Your task to perform on an android device: Show the shopping cart on walmart.com. Add alienware area 51 to the cart on walmart.com, then select checkout. Image 0: 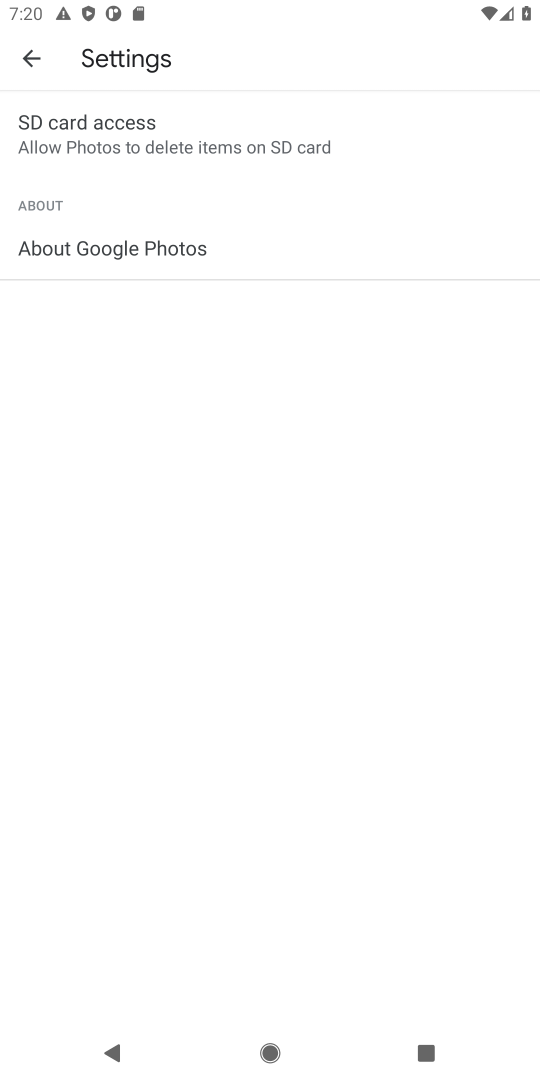
Step 0: press home button
Your task to perform on an android device: Show the shopping cart on walmart.com. Add alienware area 51 to the cart on walmart.com, then select checkout. Image 1: 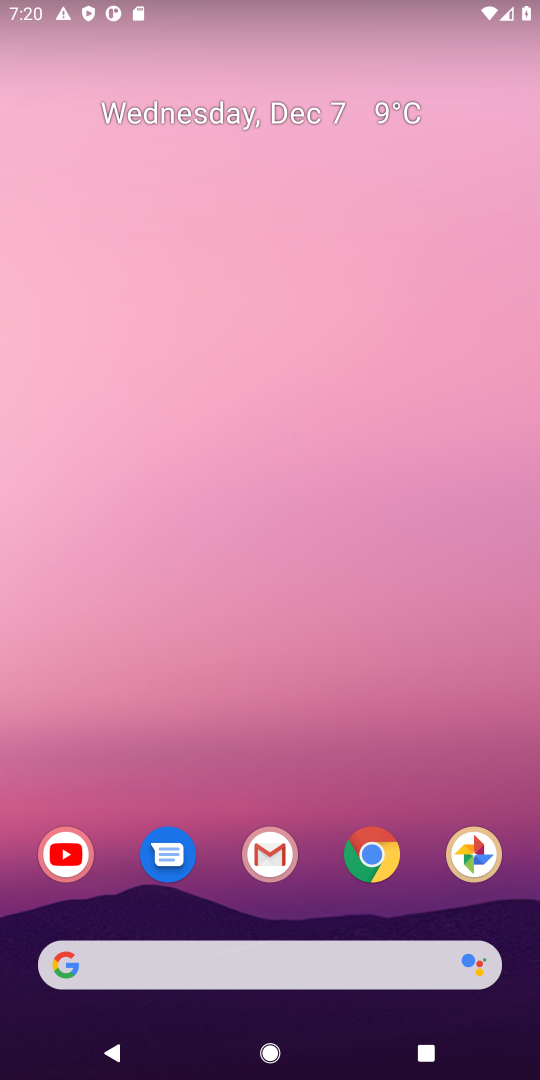
Step 1: click (312, 964)
Your task to perform on an android device: Show the shopping cart on walmart.com. Add alienware area 51 to the cart on walmart.com, then select checkout. Image 2: 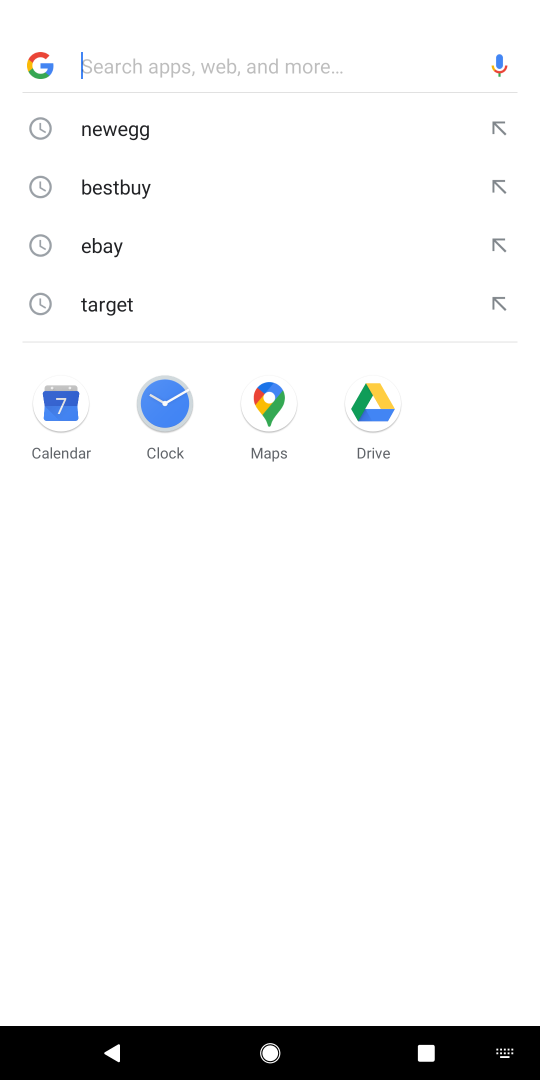
Step 2: type "walmart"
Your task to perform on an android device: Show the shopping cart on walmart.com. Add alienware area 51 to the cart on walmart.com, then select checkout. Image 3: 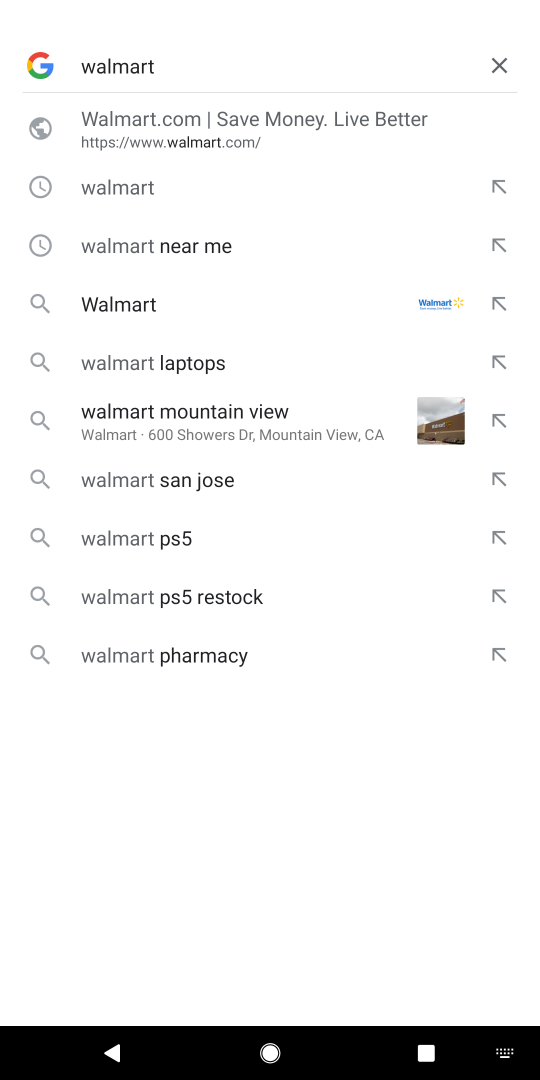
Step 3: click (134, 114)
Your task to perform on an android device: Show the shopping cart on walmart.com. Add alienware area 51 to the cart on walmart.com, then select checkout. Image 4: 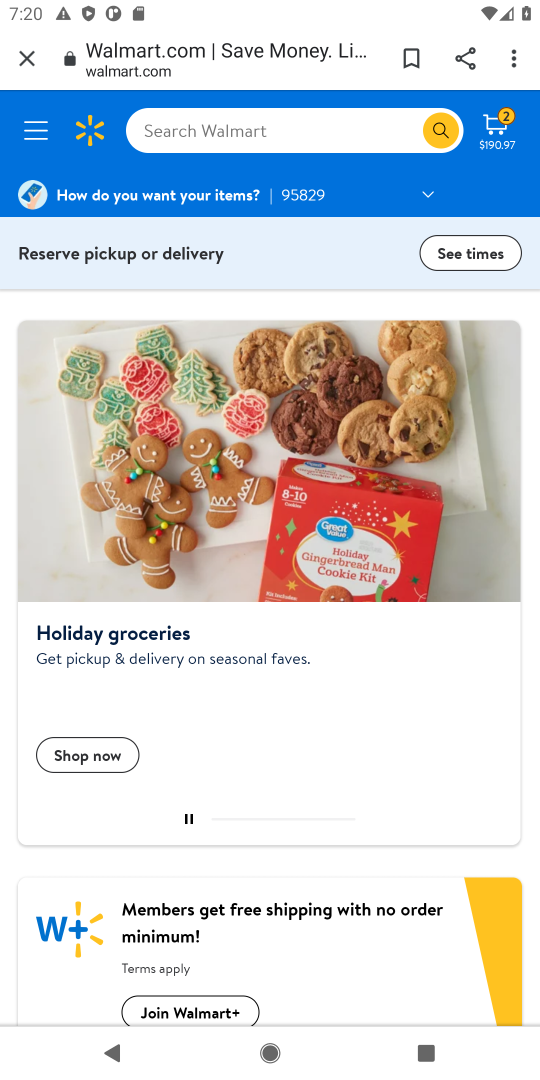
Step 4: click (147, 114)
Your task to perform on an android device: Show the shopping cart on walmart.com. Add alienware area 51 to the cart on walmart.com, then select checkout. Image 5: 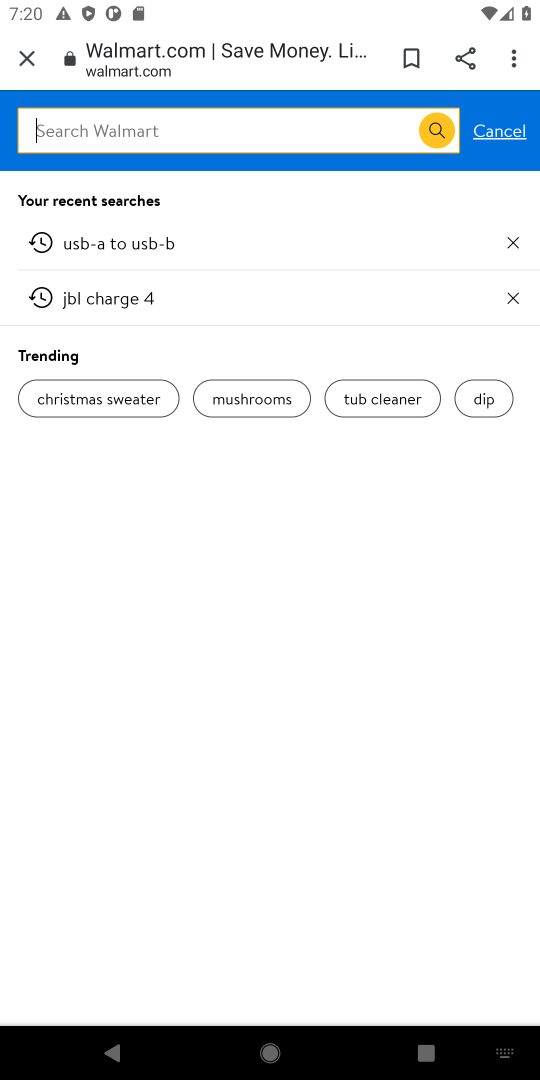
Step 5: type "alienwear"
Your task to perform on an android device: Show the shopping cart on walmart.com. Add alienware area 51 to the cart on walmart.com, then select checkout. Image 6: 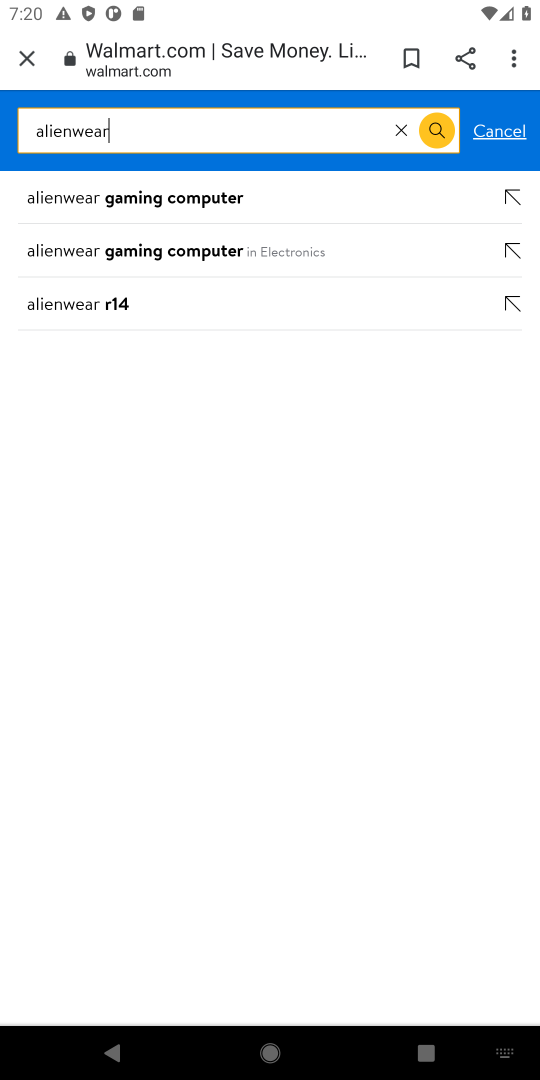
Step 6: click (86, 170)
Your task to perform on an android device: Show the shopping cart on walmart.com. Add alienware area 51 to the cart on walmart.com, then select checkout. Image 7: 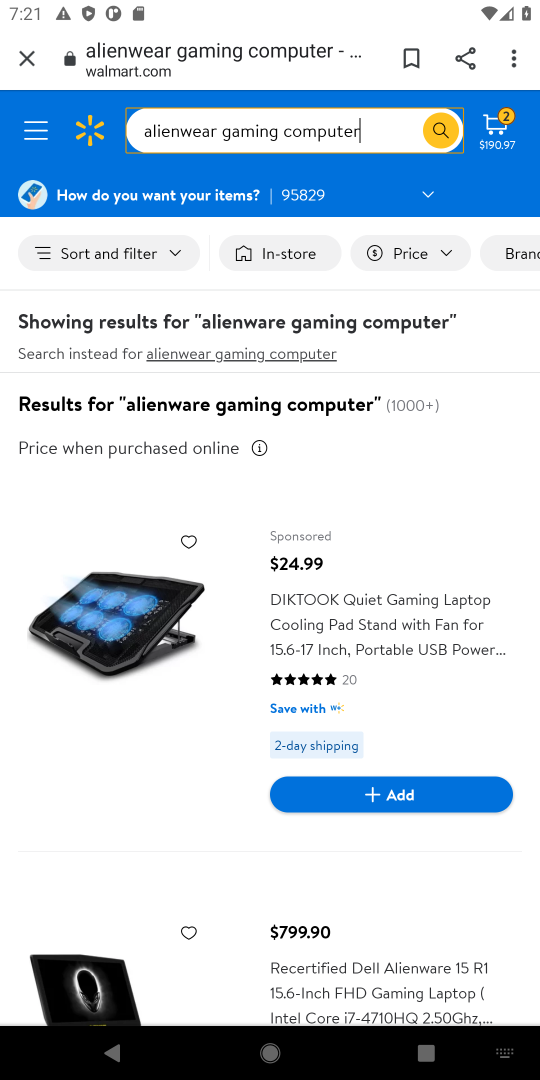
Step 7: click (404, 790)
Your task to perform on an android device: Show the shopping cart on walmart.com. Add alienware area 51 to the cart on walmart.com, then select checkout. Image 8: 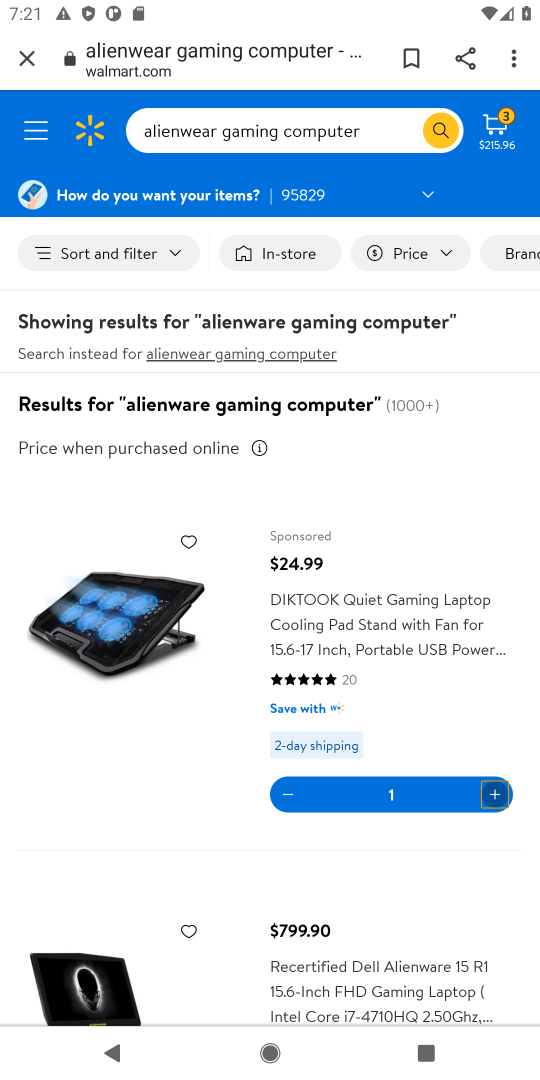
Step 8: task complete